Your task to perform on an android device: stop showing notifications on the lock screen Image 0: 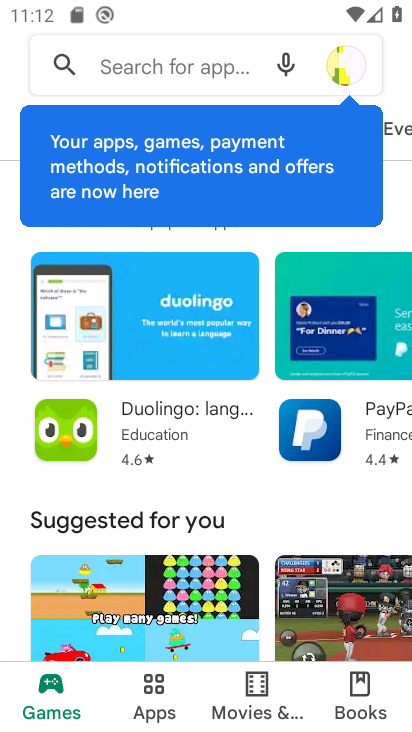
Step 0: press home button
Your task to perform on an android device: stop showing notifications on the lock screen Image 1: 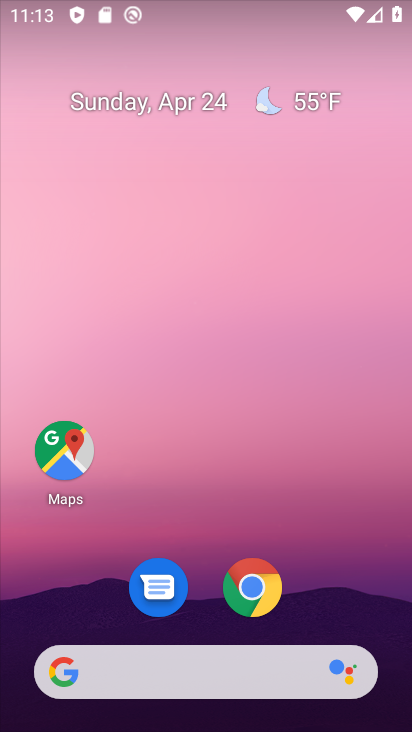
Step 1: drag from (385, 520) to (402, 75)
Your task to perform on an android device: stop showing notifications on the lock screen Image 2: 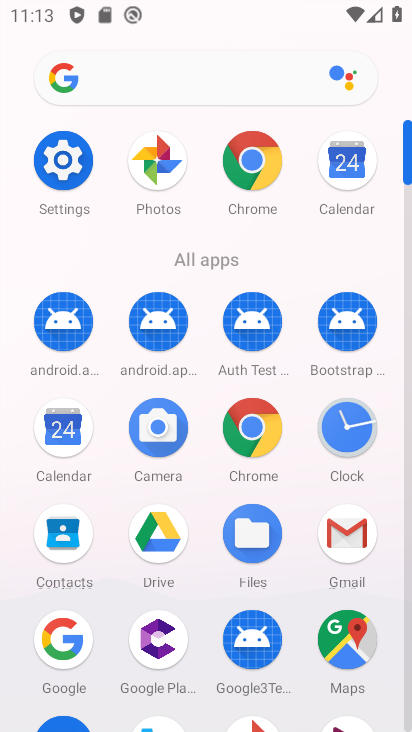
Step 2: click (64, 157)
Your task to perform on an android device: stop showing notifications on the lock screen Image 3: 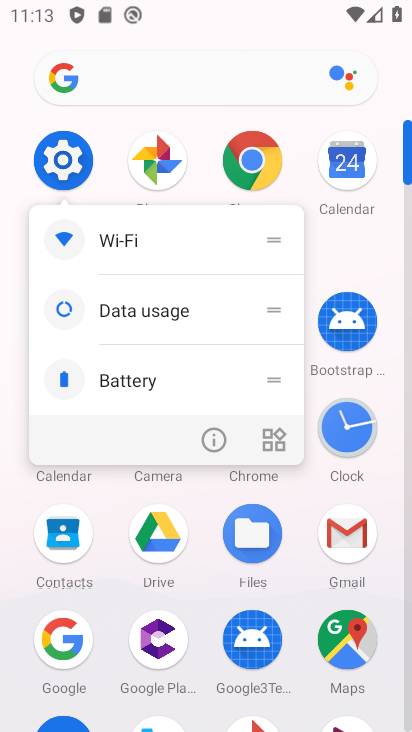
Step 3: click (64, 156)
Your task to perform on an android device: stop showing notifications on the lock screen Image 4: 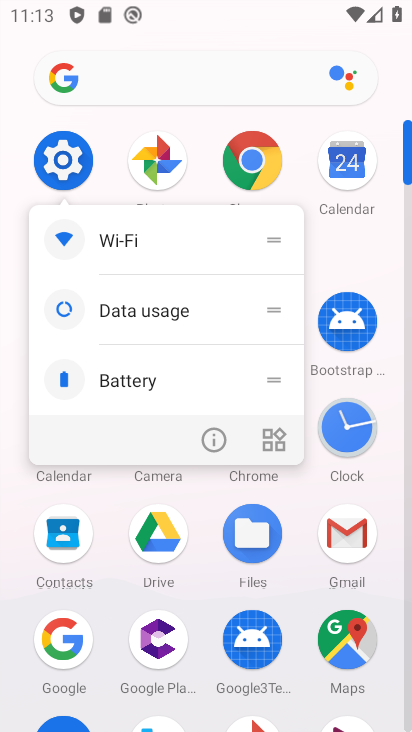
Step 4: click (64, 155)
Your task to perform on an android device: stop showing notifications on the lock screen Image 5: 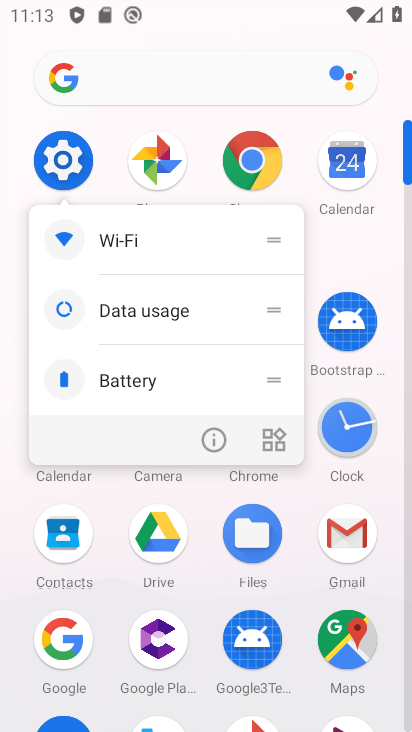
Step 5: click (54, 160)
Your task to perform on an android device: stop showing notifications on the lock screen Image 6: 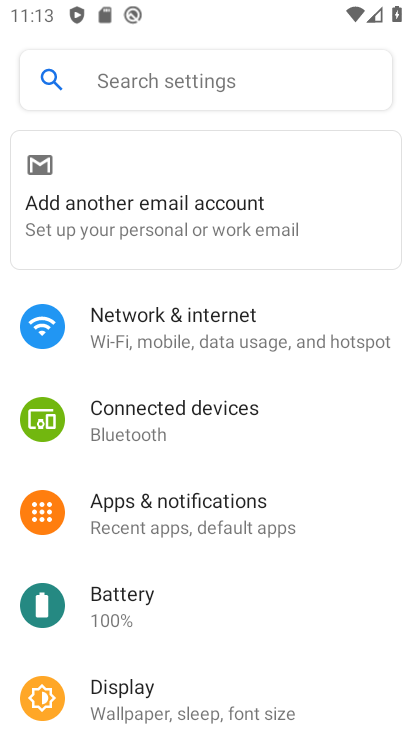
Step 6: click (227, 520)
Your task to perform on an android device: stop showing notifications on the lock screen Image 7: 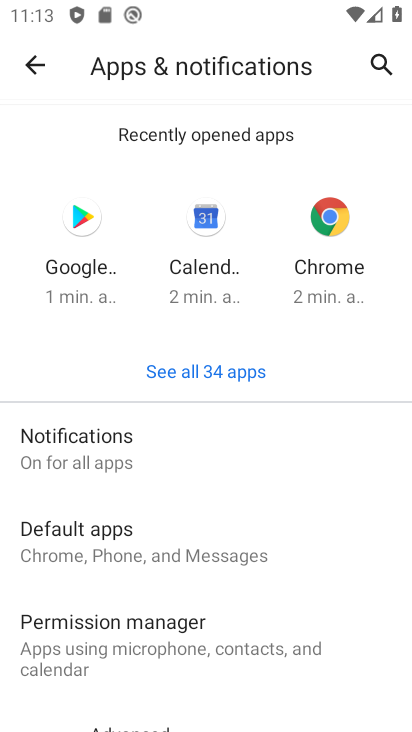
Step 7: click (98, 440)
Your task to perform on an android device: stop showing notifications on the lock screen Image 8: 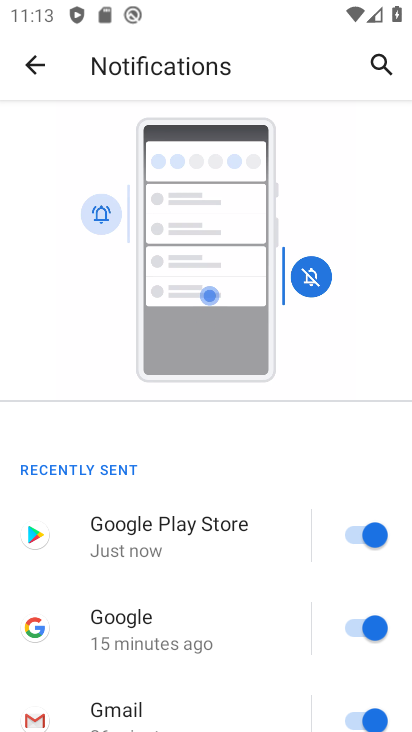
Step 8: click (313, 163)
Your task to perform on an android device: stop showing notifications on the lock screen Image 9: 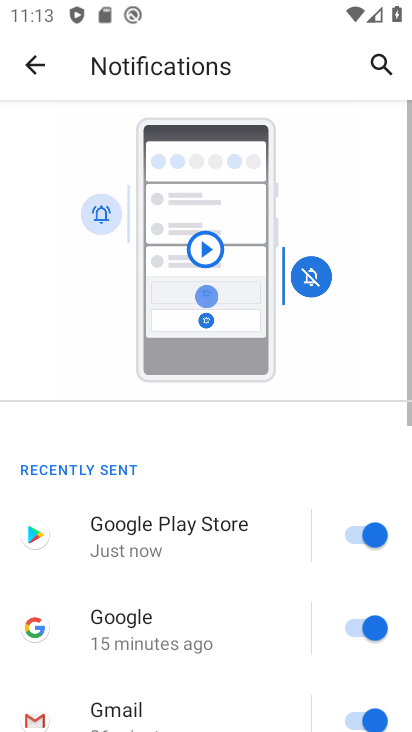
Step 9: drag from (221, 558) to (219, 288)
Your task to perform on an android device: stop showing notifications on the lock screen Image 10: 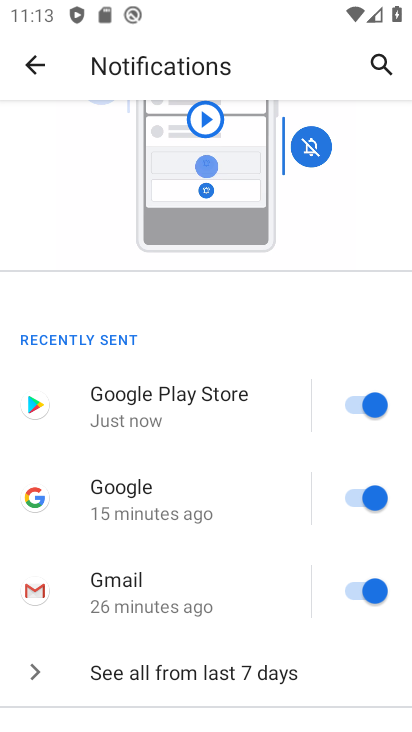
Step 10: drag from (191, 605) to (213, 224)
Your task to perform on an android device: stop showing notifications on the lock screen Image 11: 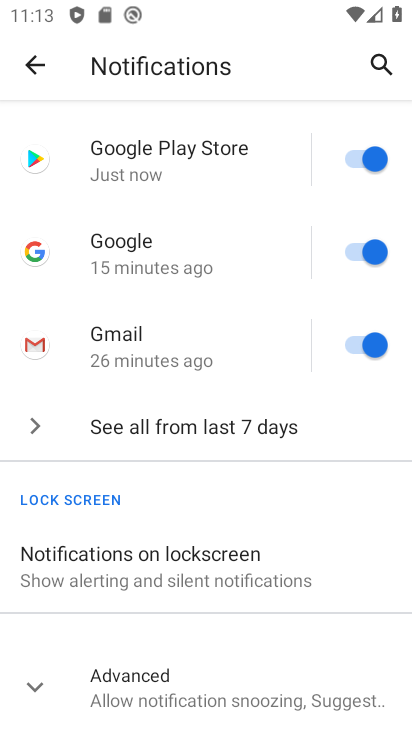
Step 11: click (146, 568)
Your task to perform on an android device: stop showing notifications on the lock screen Image 12: 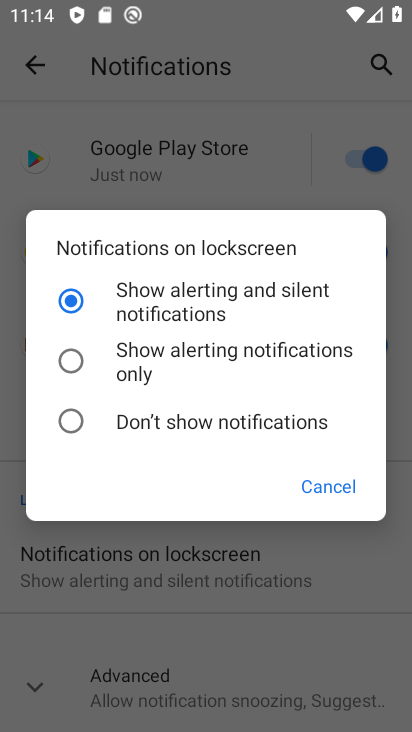
Step 12: click (75, 361)
Your task to perform on an android device: stop showing notifications on the lock screen Image 13: 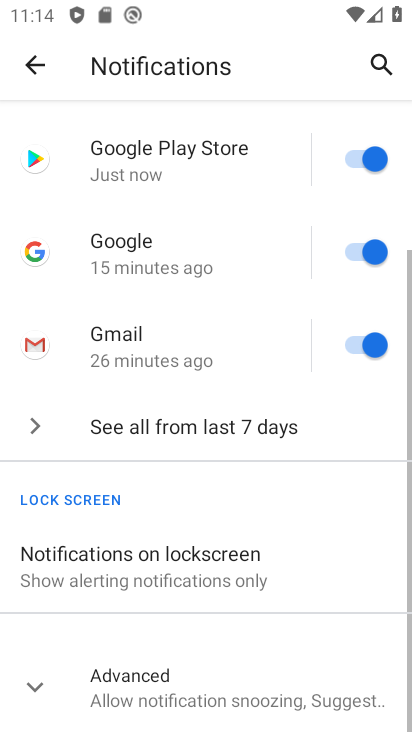
Step 13: task complete